Your task to perform on an android device: see tabs open on other devices in the chrome app Image 0: 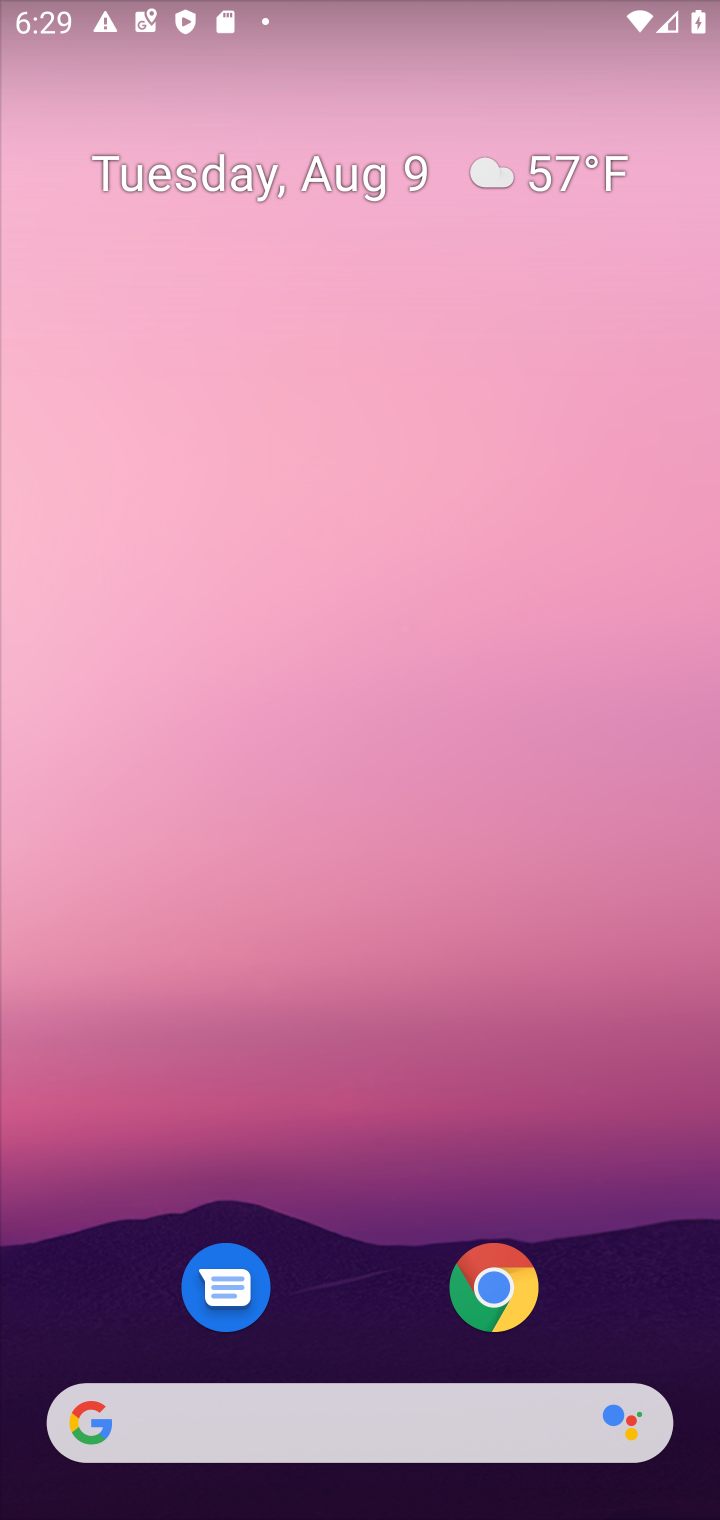
Step 0: drag from (376, 1138) to (373, 312)
Your task to perform on an android device: see tabs open on other devices in the chrome app Image 1: 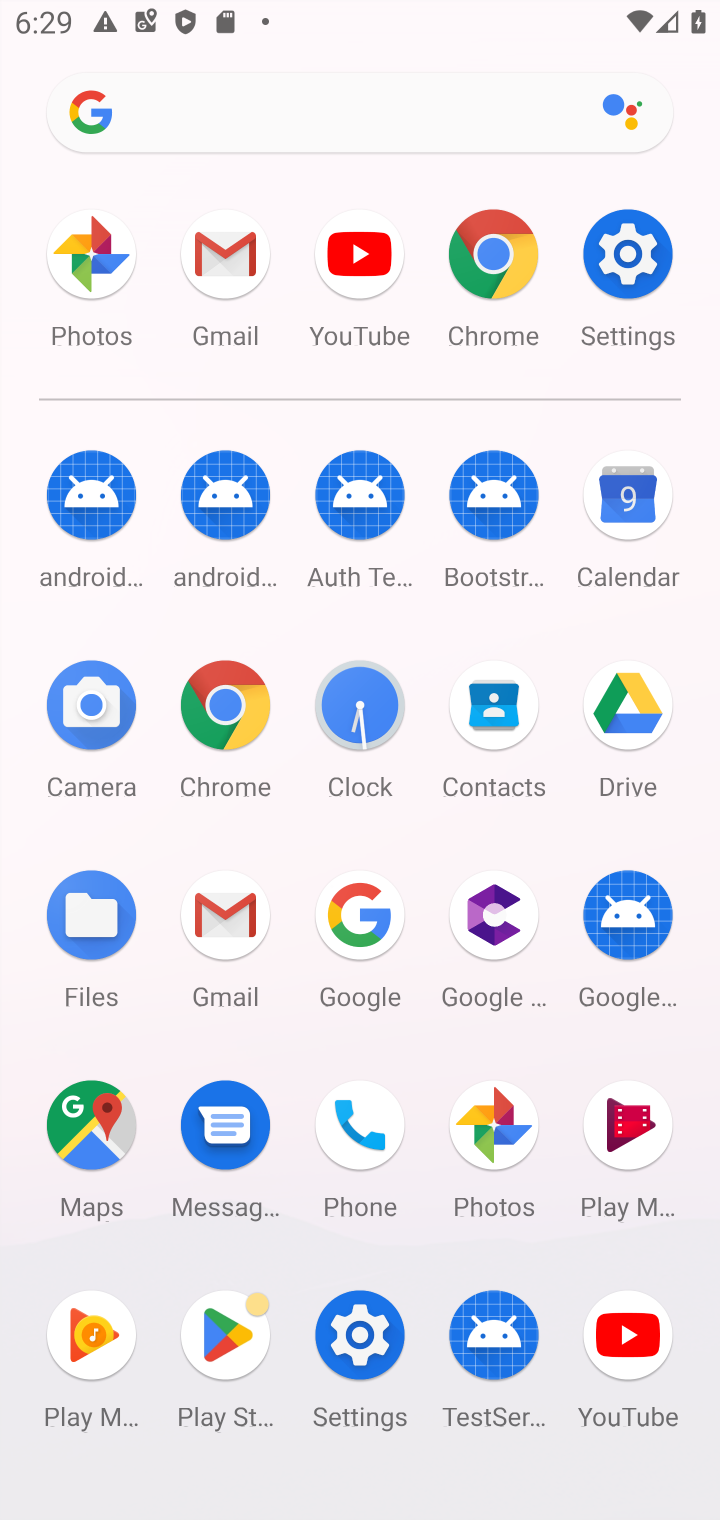
Step 1: click (232, 717)
Your task to perform on an android device: see tabs open on other devices in the chrome app Image 2: 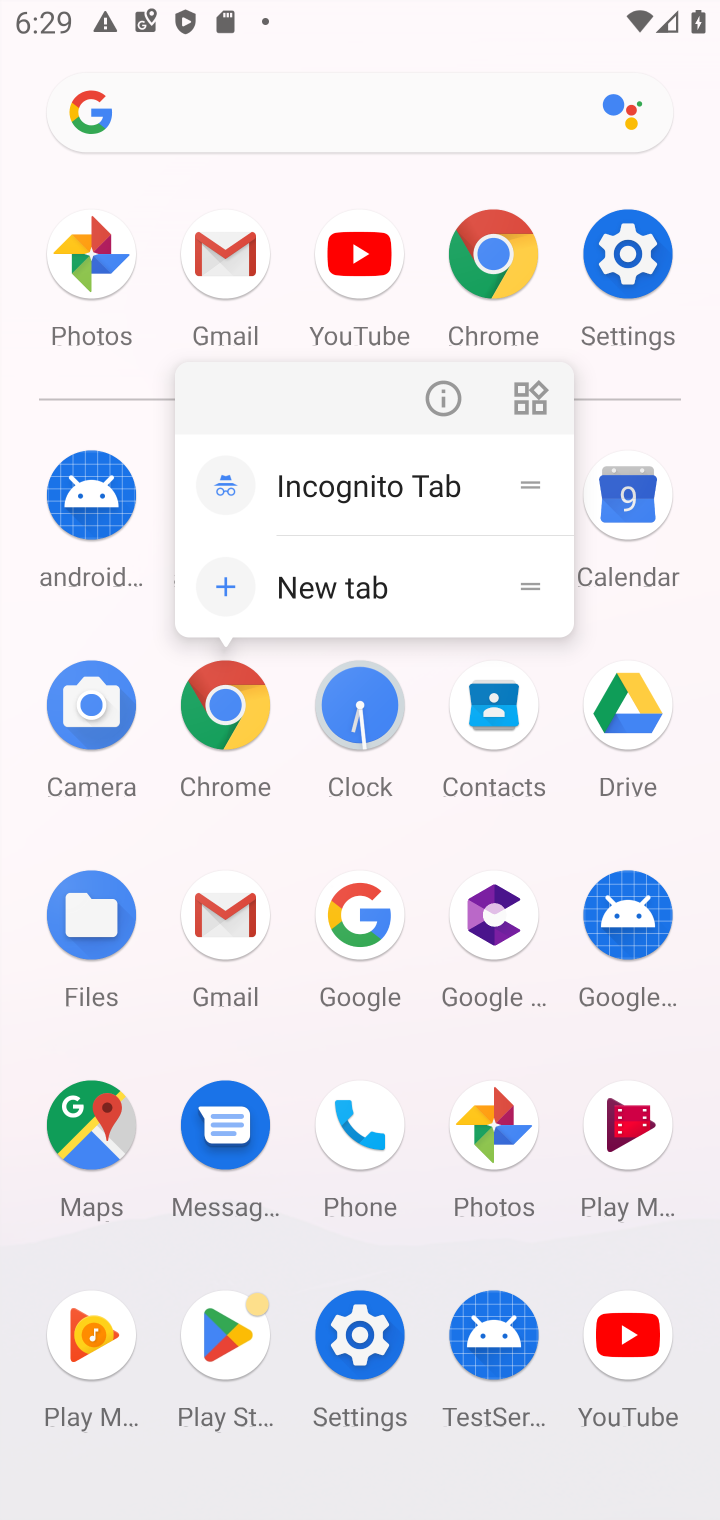
Step 2: click (324, 579)
Your task to perform on an android device: see tabs open on other devices in the chrome app Image 3: 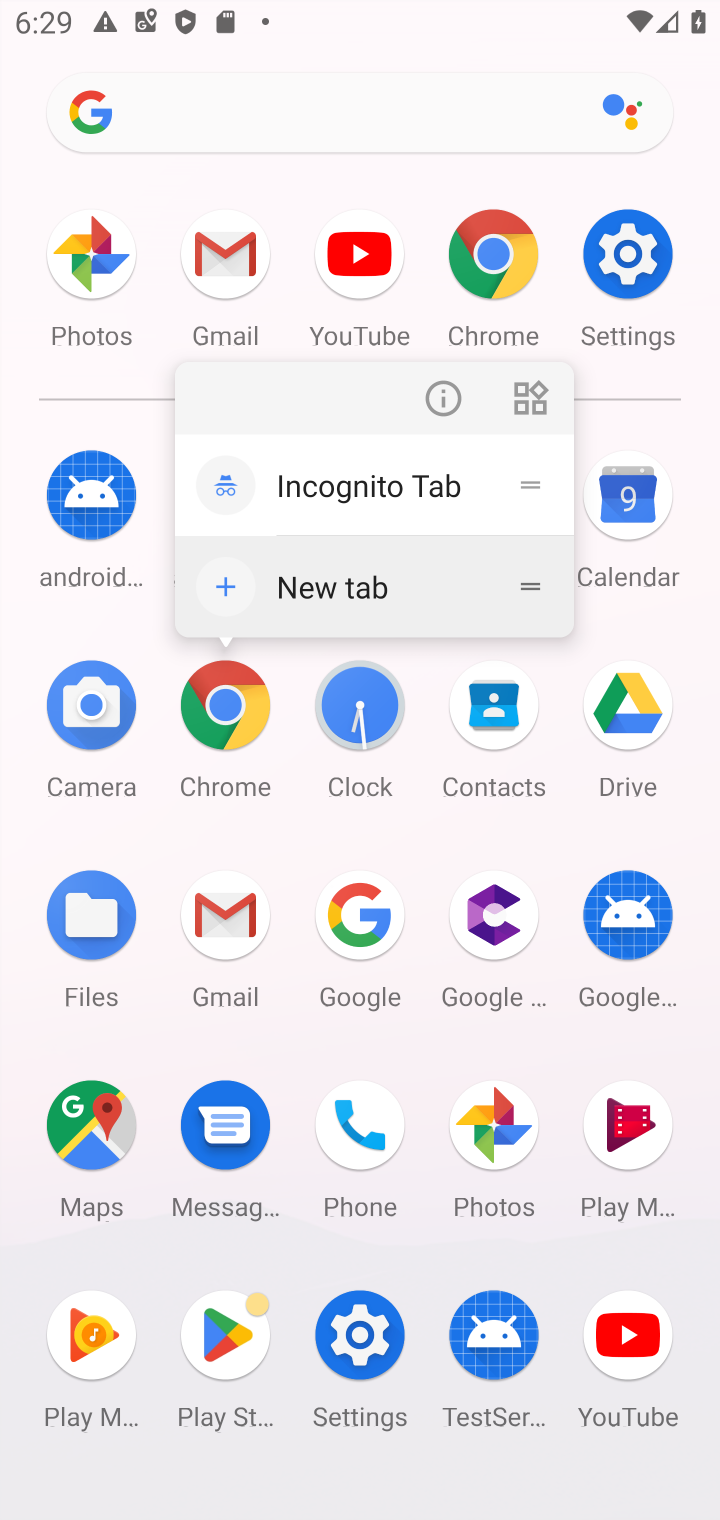
Step 3: click (341, 573)
Your task to perform on an android device: see tabs open on other devices in the chrome app Image 4: 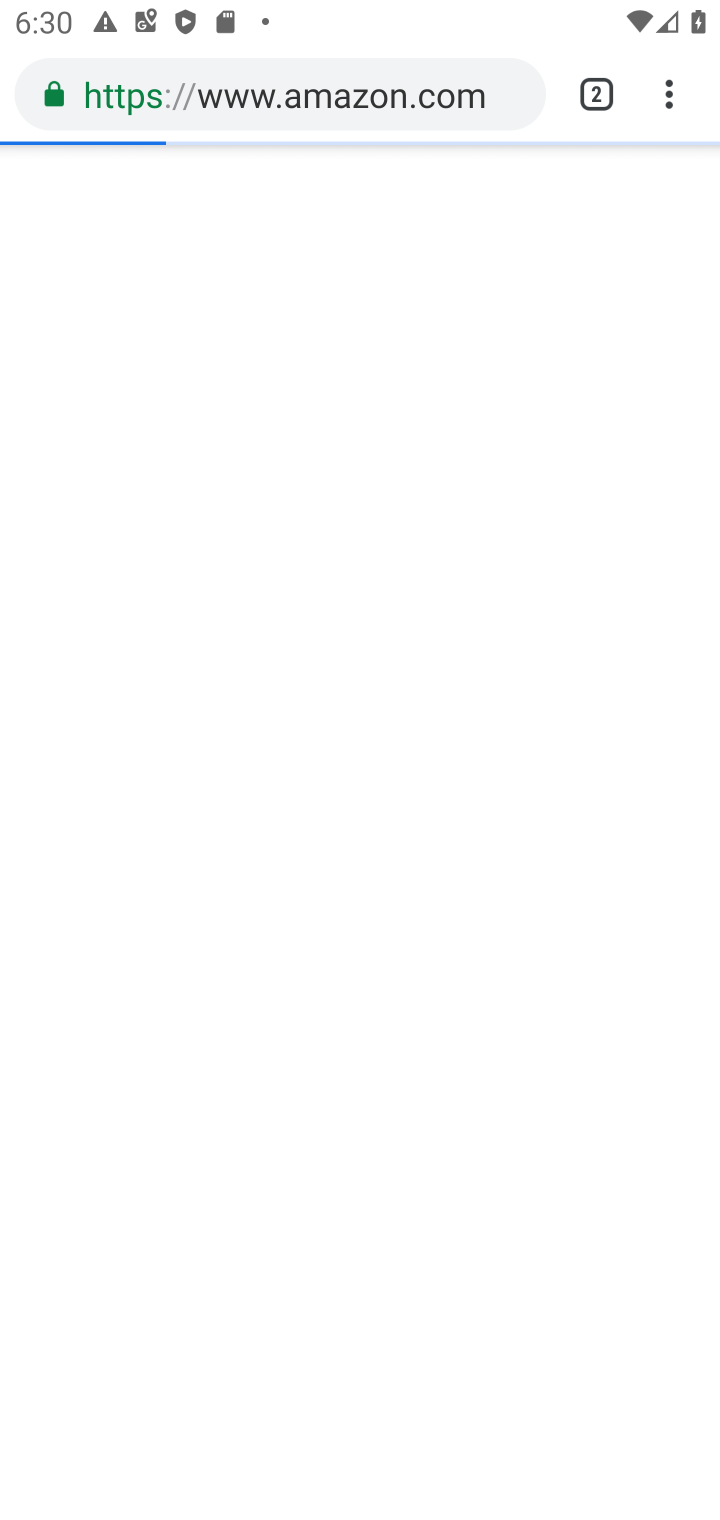
Step 4: task complete